Your task to perform on an android device: What's the weather going to be this weekend? Image 0: 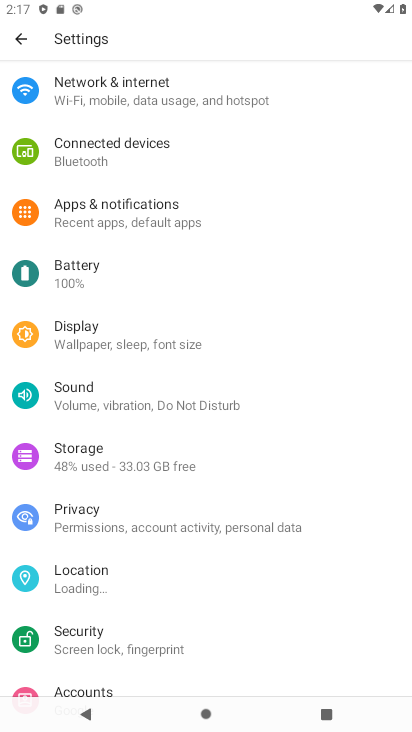
Step 0: press home button
Your task to perform on an android device: What's the weather going to be this weekend? Image 1: 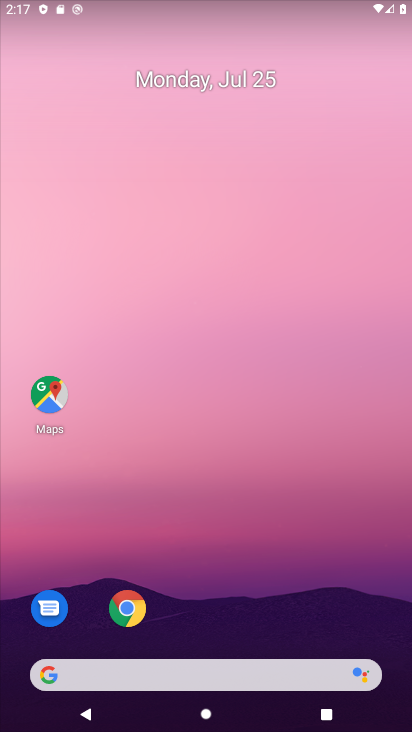
Step 1: click (130, 616)
Your task to perform on an android device: What's the weather going to be this weekend? Image 2: 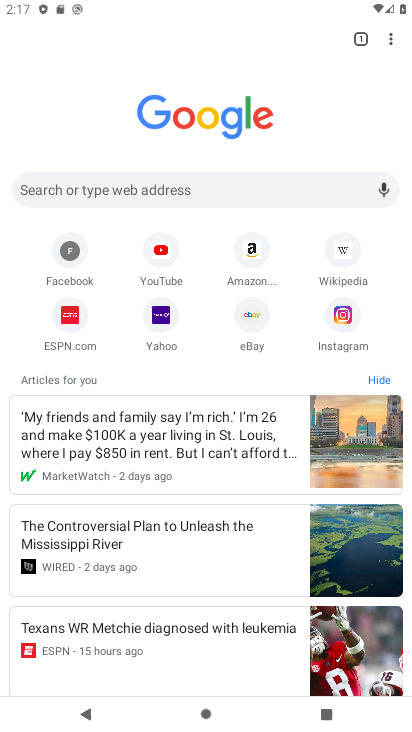
Step 2: click (208, 183)
Your task to perform on an android device: What's the weather going to be this weekend? Image 3: 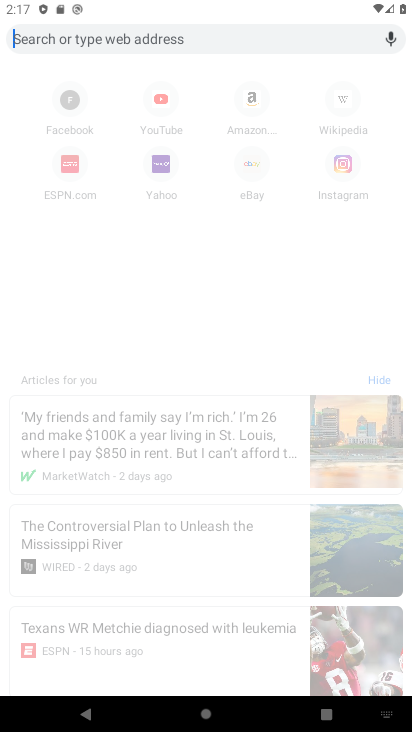
Step 3: type "What's the weather going to be this weekend?"
Your task to perform on an android device: What's the weather going to be this weekend? Image 4: 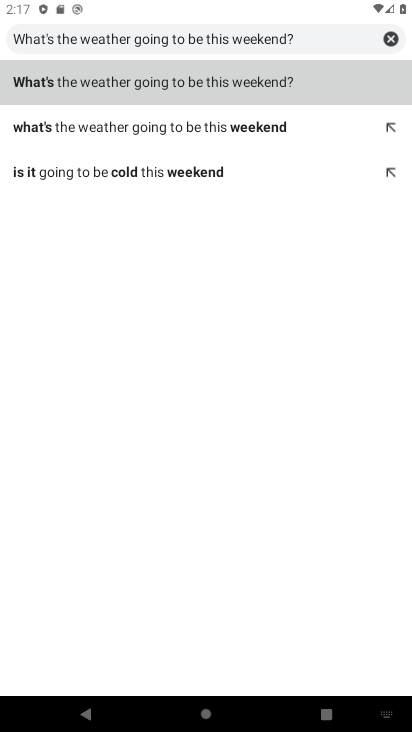
Step 4: click (277, 93)
Your task to perform on an android device: What's the weather going to be this weekend? Image 5: 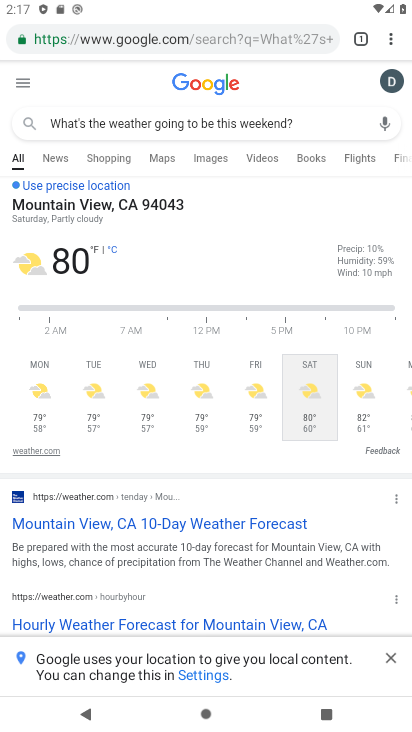
Step 5: task complete